Your task to perform on an android device: change timer sound Image 0: 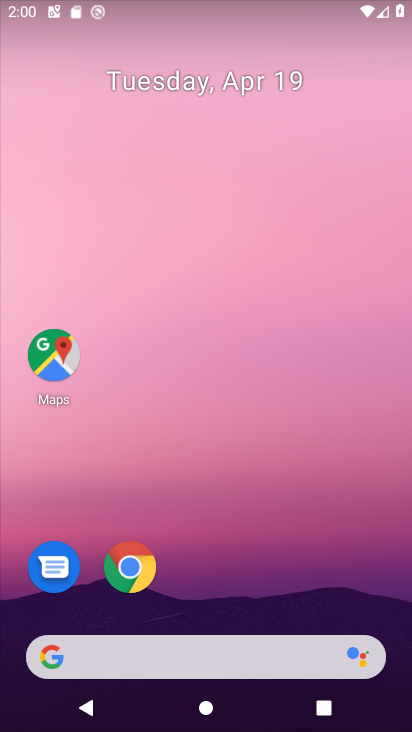
Step 0: drag from (241, 518) to (23, 5)
Your task to perform on an android device: change timer sound Image 1: 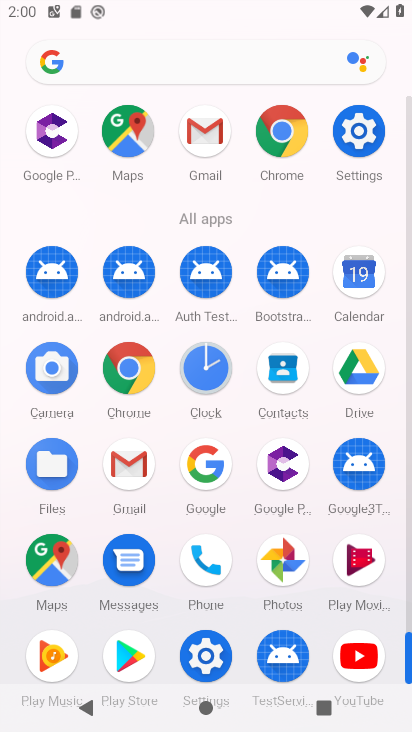
Step 1: click (196, 375)
Your task to perform on an android device: change timer sound Image 2: 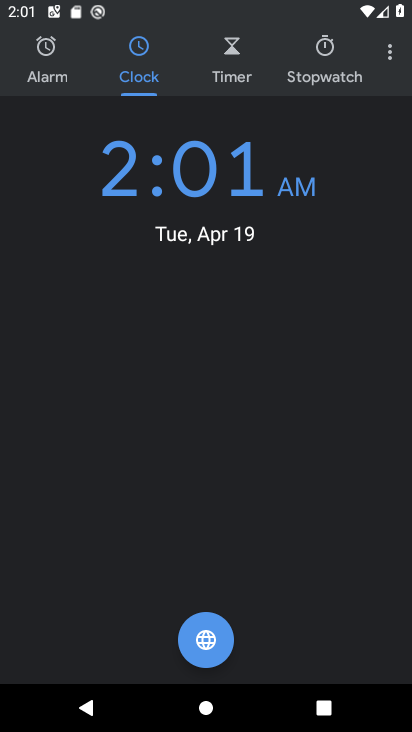
Step 2: click (393, 50)
Your task to perform on an android device: change timer sound Image 3: 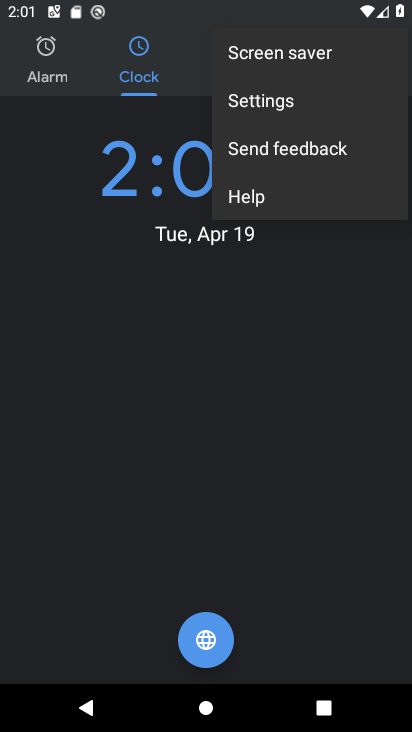
Step 3: click (260, 97)
Your task to perform on an android device: change timer sound Image 4: 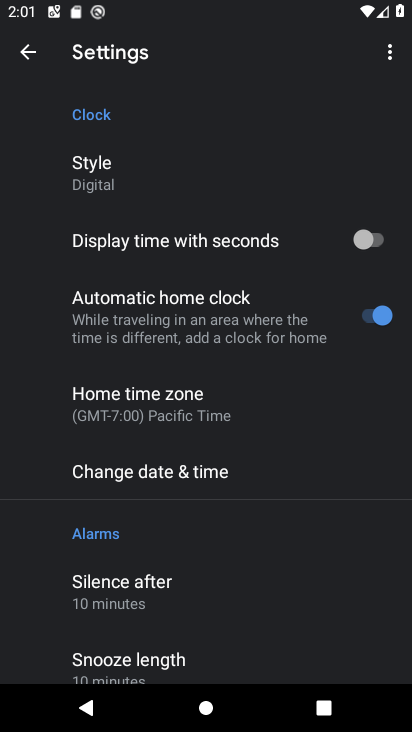
Step 4: drag from (223, 579) to (209, 213)
Your task to perform on an android device: change timer sound Image 5: 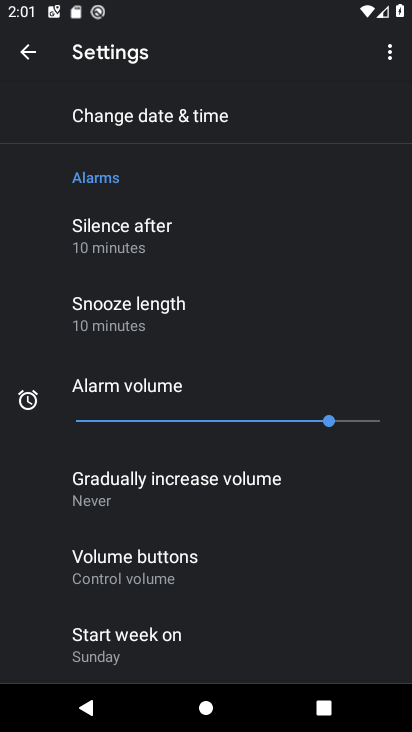
Step 5: drag from (305, 569) to (237, 141)
Your task to perform on an android device: change timer sound Image 6: 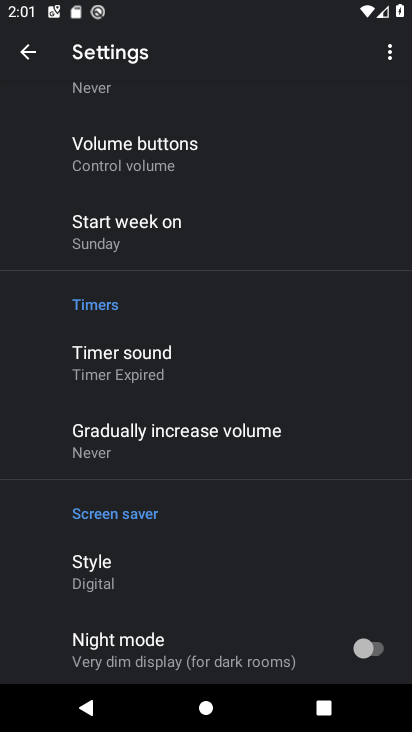
Step 6: click (126, 355)
Your task to perform on an android device: change timer sound Image 7: 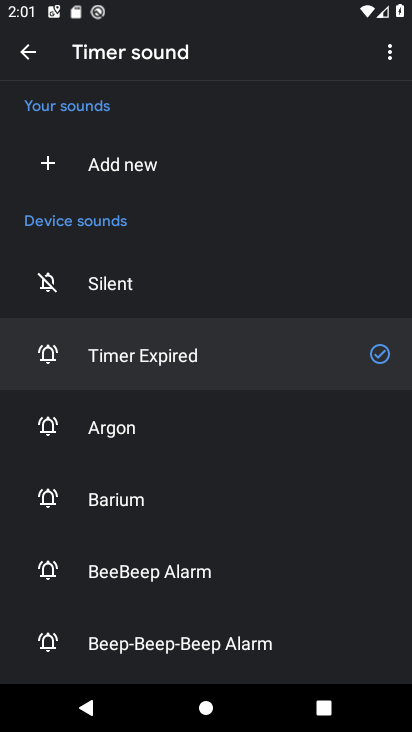
Step 7: click (157, 434)
Your task to perform on an android device: change timer sound Image 8: 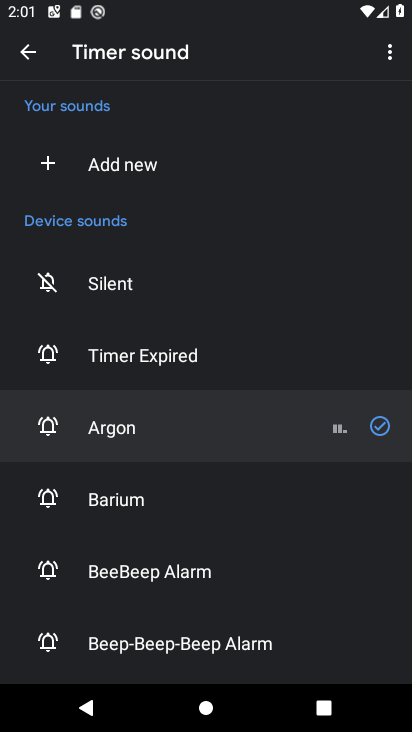
Step 8: task complete